Your task to perform on an android device: set the stopwatch Image 0: 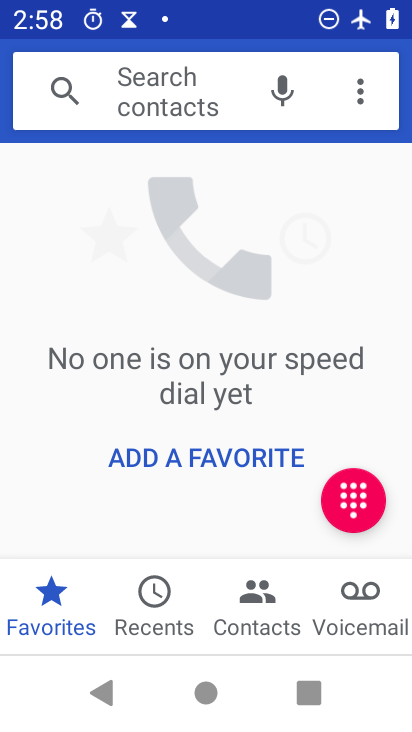
Step 0: press home button
Your task to perform on an android device: set the stopwatch Image 1: 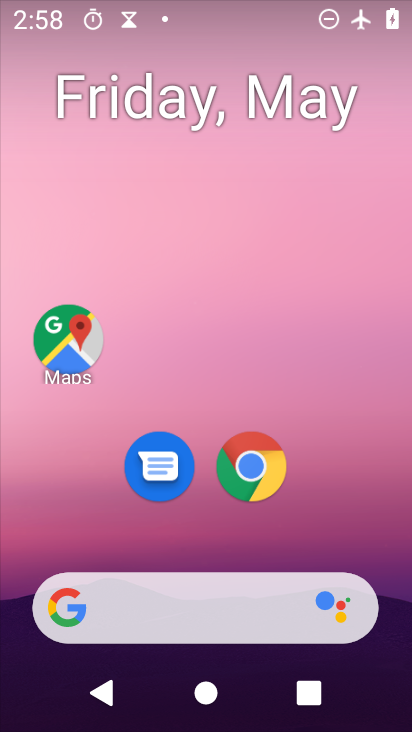
Step 1: drag from (367, 527) to (390, 192)
Your task to perform on an android device: set the stopwatch Image 2: 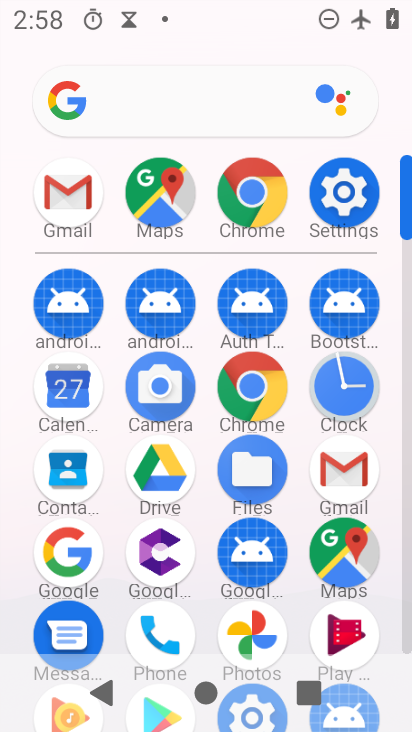
Step 2: click (358, 381)
Your task to perform on an android device: set the stopwatch Image 3: 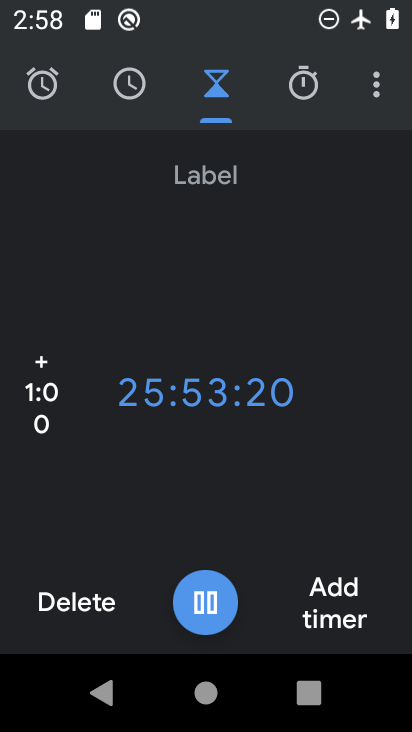
Step 3: click (306, 95)
Your task to perform on an android device: set the stopwatch Image 4: 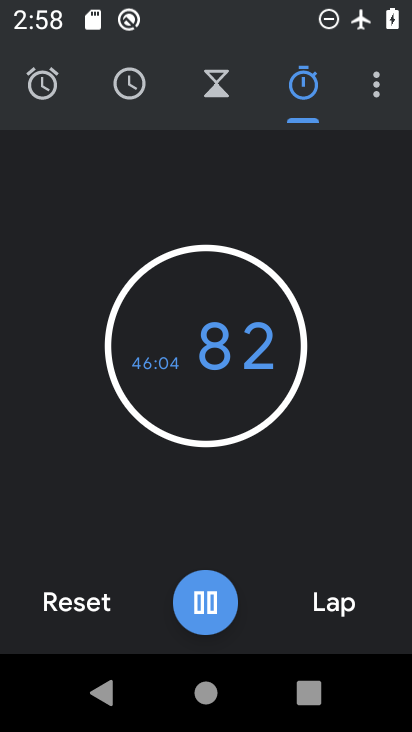
Step 4: task complete